Your task to perform on an android device: turn off improve location accuracy Image 0: 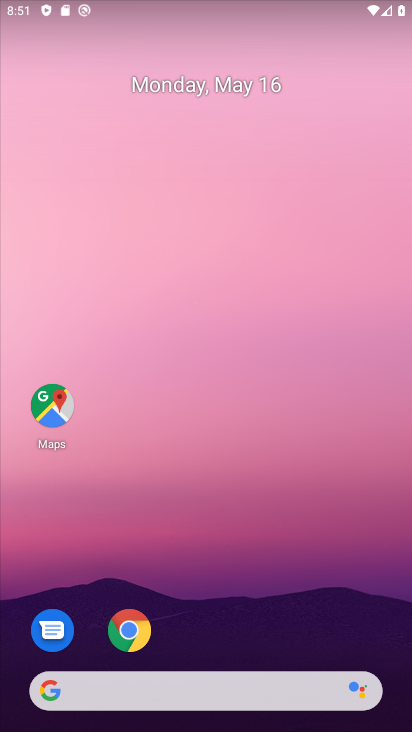
Step 0: drag from (196, 560) to (245, 257)
Your task to perform on an android device: turn off improve location accuracy Image 1: 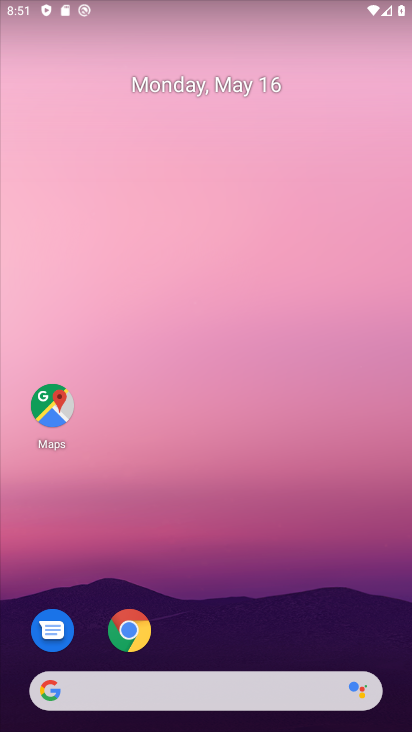
Step 1: drag from (199, 640) to (239, 118)
Your task to perform on an android device: turn off improve location accuracy Image 2: 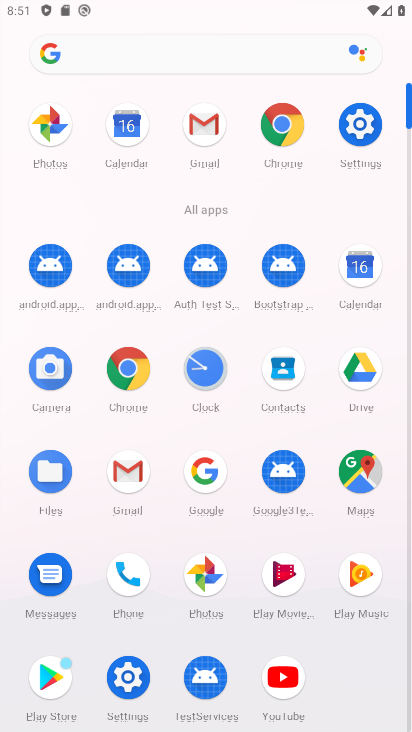
Step 2: click (143, 684)
Your task to perform on an android device: turn off improve location accuracy Image 3: 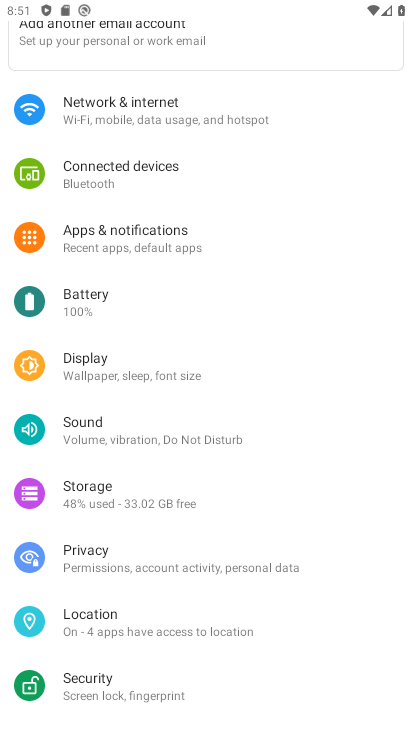
Step 3: click (128, 618)
Your task to perform on an android device: turn off improve location accuracy Image 4: 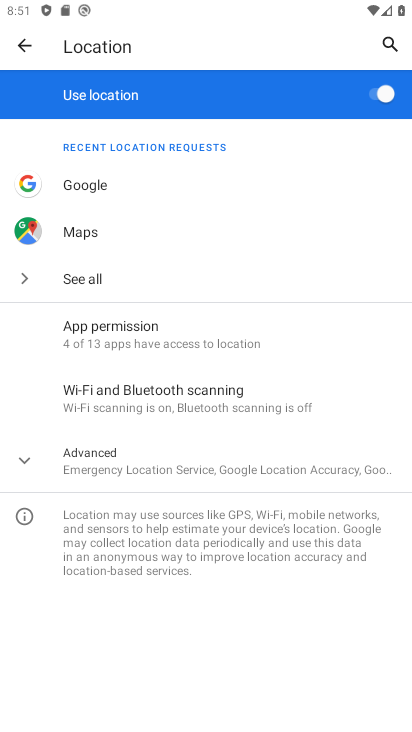
Step 4: click (230, 472)
Your task to perform on an android device: turn off improve location accuracy Image 5: 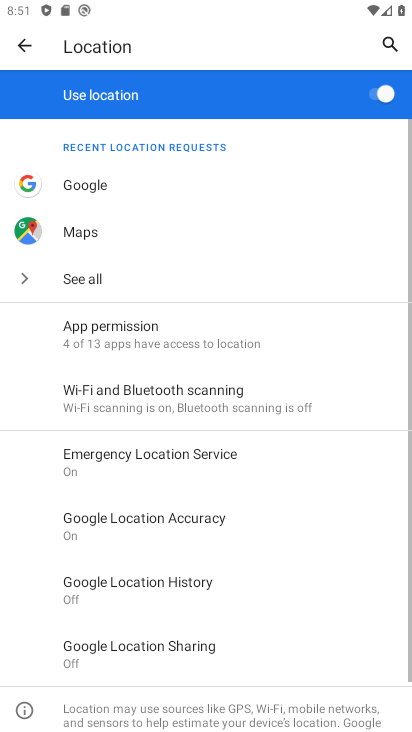
Step 5: drag from (214, 656) to (251, 498)
Your task to perform on an android device: turn off improve location accuracy Image 6: 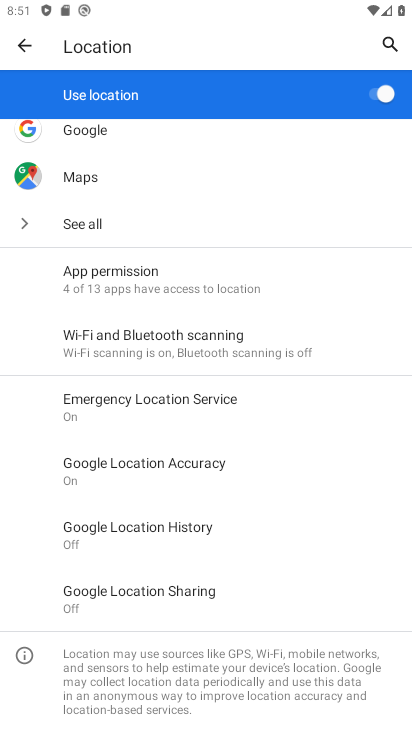
Step 6: click (229, 479)
Your task to perform on an android device: turn off improve location accuracy Image 7: 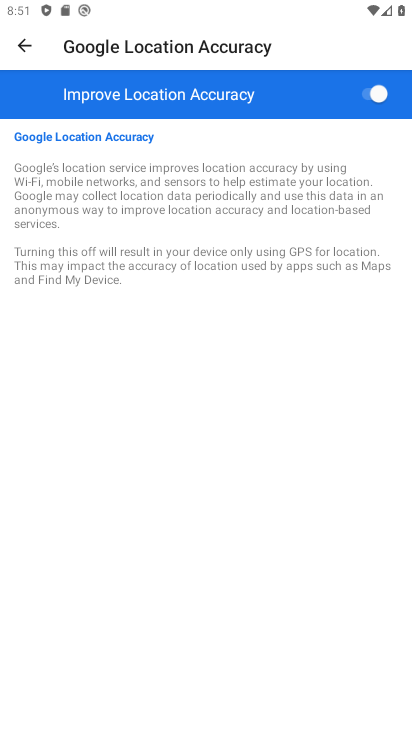
Step 7: click (367, 89)
Your task to perform on an android device: turn off improve location accuracy Image 8: 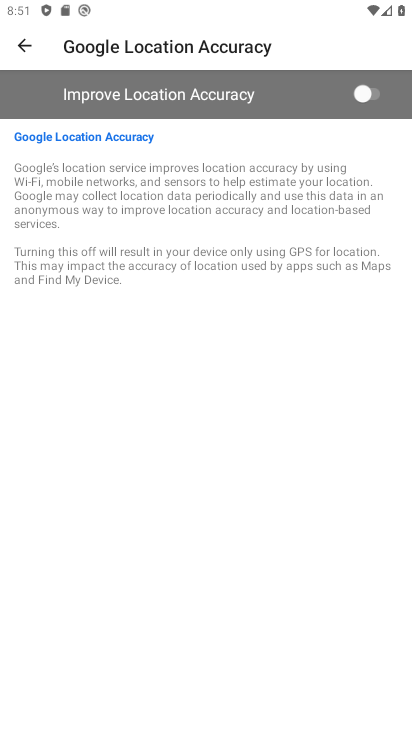
Step 8: task complete